Your task to perform on an android device: Check the weather Image 0: 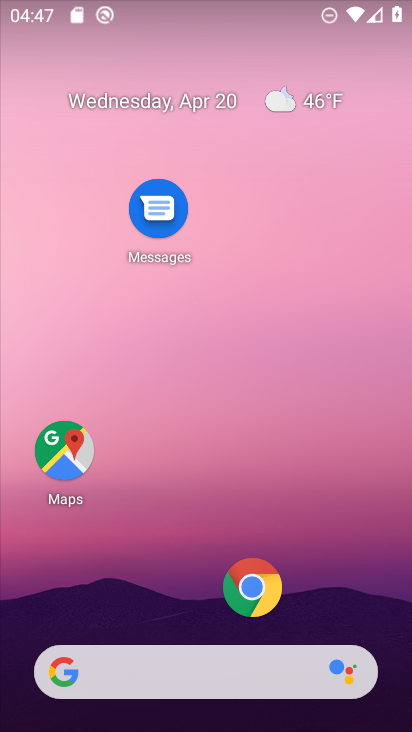
Step 0: drag from (190, 617) to (211, 144)
Your task to perform on an android device: Check the weather Image 1: 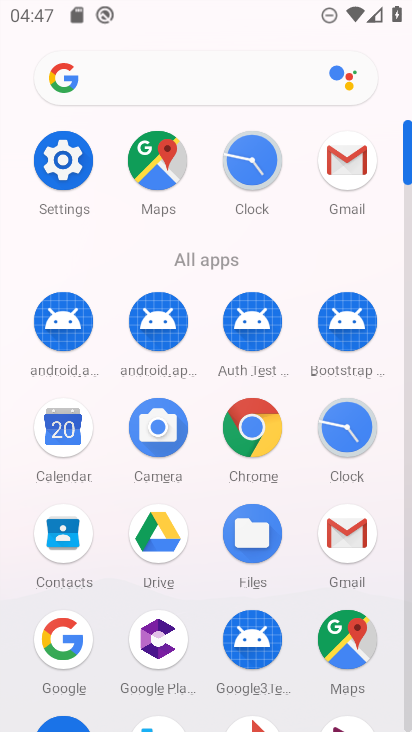
Step 1: click (58, 635)
Your task to perform on an android device: Check the weather Image 2: 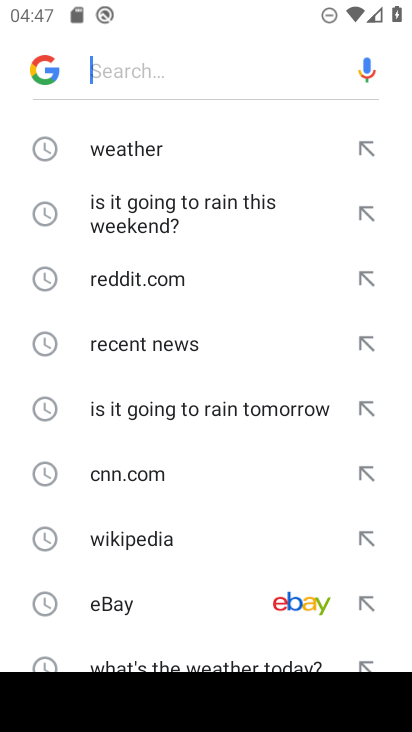
Step 2: click (37, 69)
Your task to perform on an android device: Check the weather Image 3: 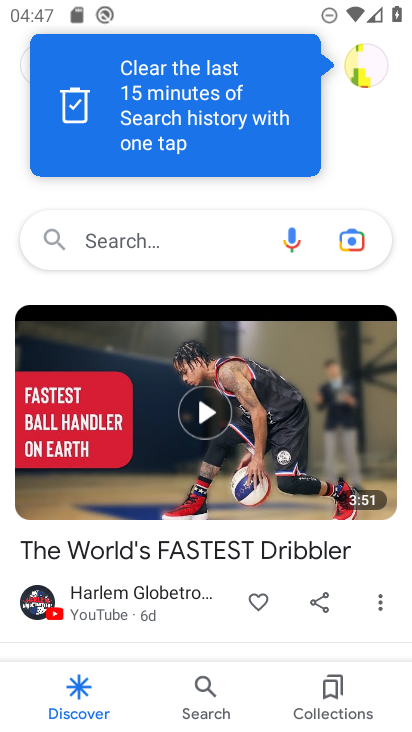
Step 3: click (18, 179)
Your task to perform on an android device: Check the weather Image 4: 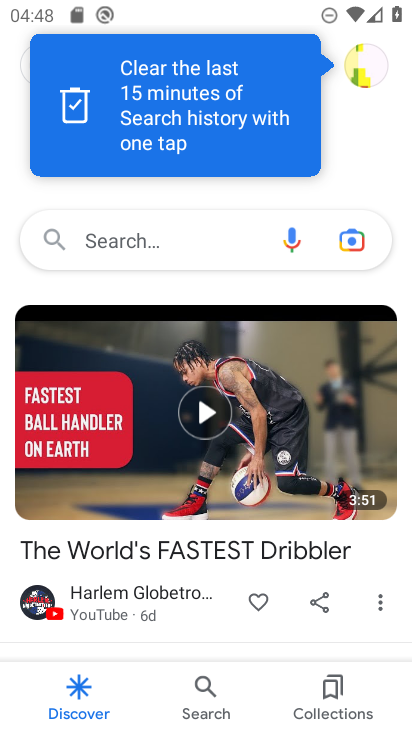
Step 4: click (350, 120)
Your task to perform on an android device: Check the weather Image 5: 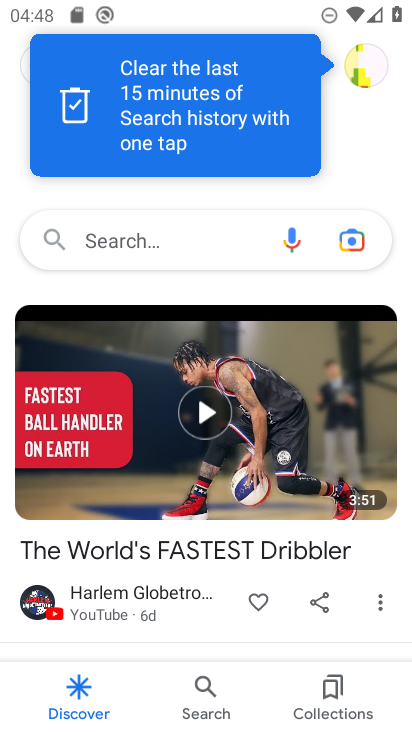
Step 5: drag from (355, 103) to (365, 52)
Your task to perform on an android device: Check the weather Image 6: 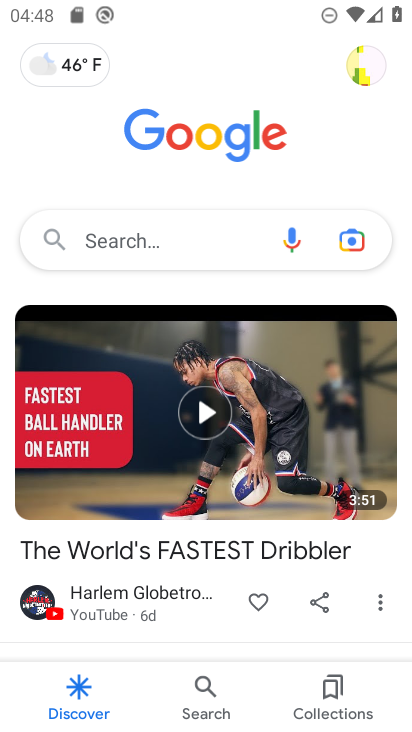
Step 6: click (83, 61)
Your task to perform on an android device: Check the weather Image 7: 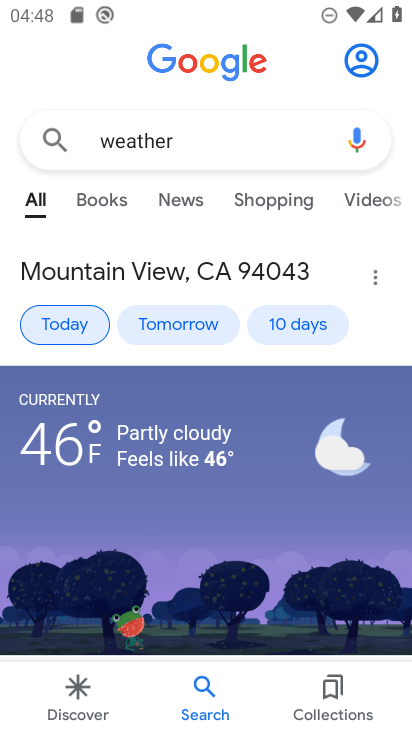
Step 7: task complete